Your task to perform on an android device: Search for the new Apple Watch on Best Buy Image 0: 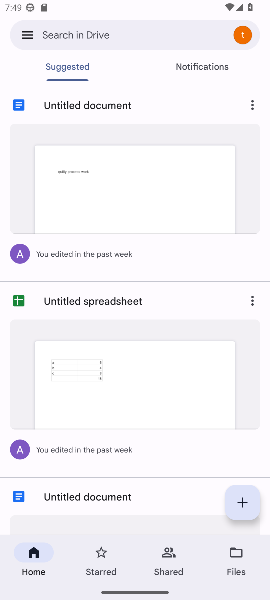
Step 0: press home button
Your task to perform on an android device: Search for the new Apple Watch on Best Buy Image 1: 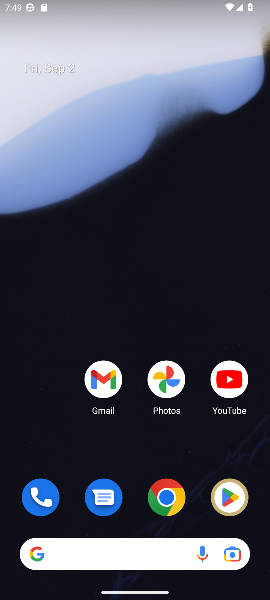
Step 1: drag from (132, 518) to (173, 182)
Your task to perform on an android device: Search for the new Apple Watch on Best Buy Image 2: 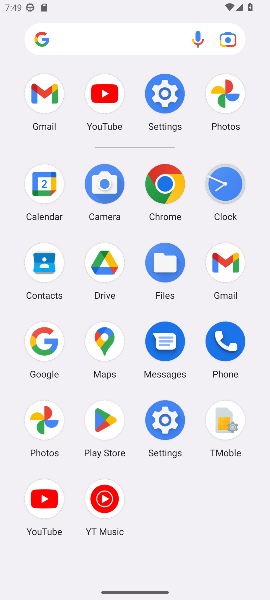
Step 2: click (50, 341)
Your task to perform on an android device: Search for the new Apple Watch on Best Buy Image 3: 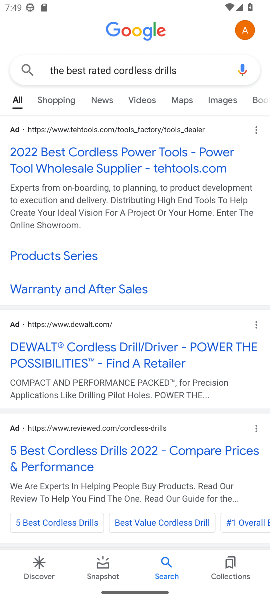
Step 3: click (185, 66)
Your task to perform on an android device: Search for the new Apple Watch on Best Buy Image 4: 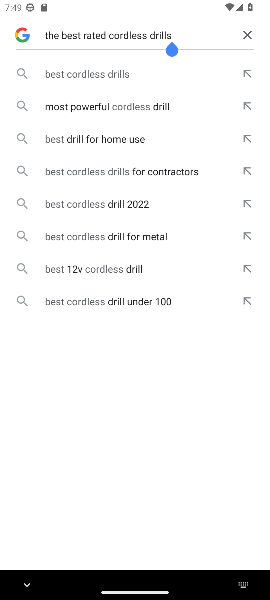
Step 4: click (246, 33)
Your task to perform on an android device: Search for the new Apple Watch on Best Buy Image 5: 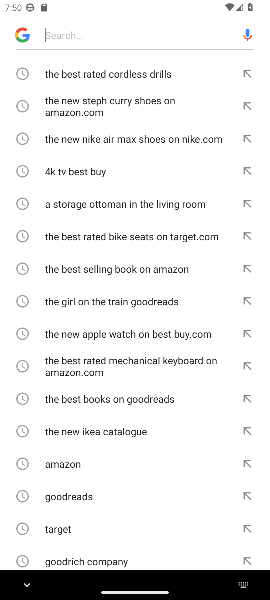
Step 5: type "the new Apple Watch on Best Buy"
Your task to perform on an android device: Search for the new Apple Watch on Best Buy Image 6: 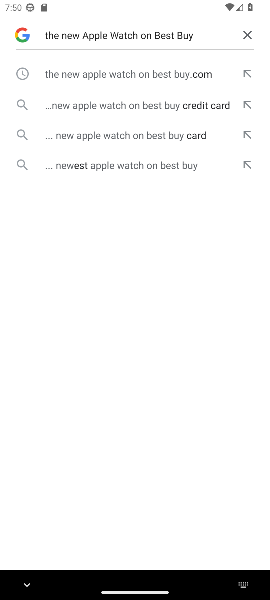
Step 6: click (161, 72)
Your task to perform on an android device: Search for the new Apple Watch on Best Buy Image 7: 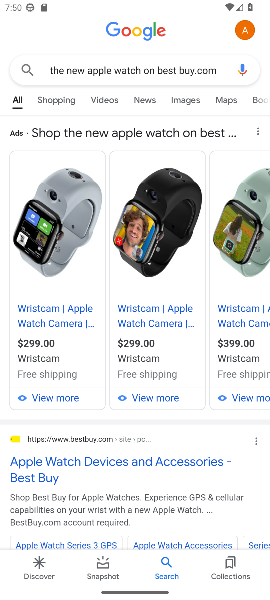
Step 7: task complete